Your task to perform on an android device: uninstall "Etsy: Buy & Sell Unique Items" Image 0: 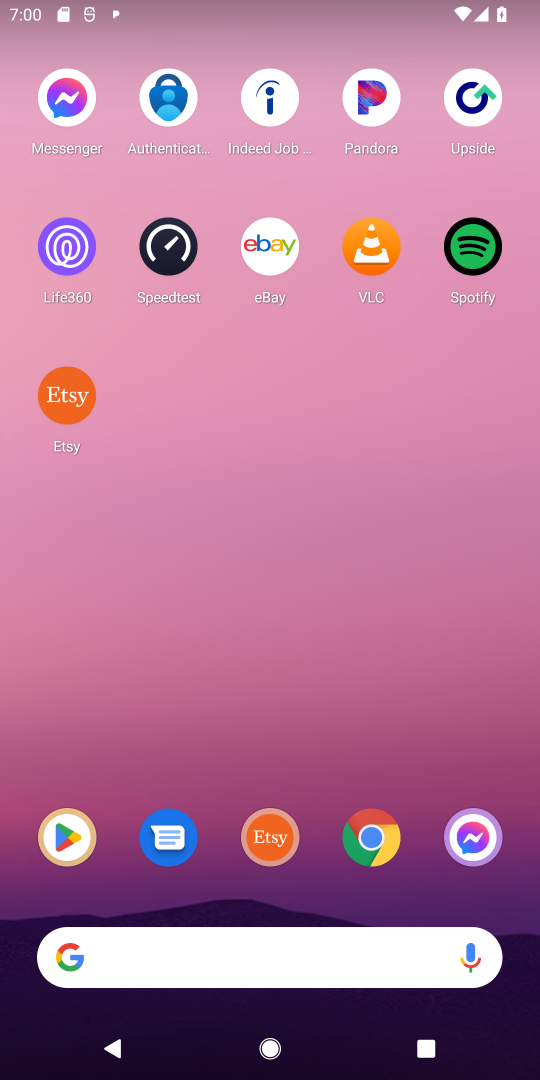
Step 0: click (75, 839)
Your task to perform on an android device: uninstall "Etsy: Buy & Sell Unique Items" Image 1: 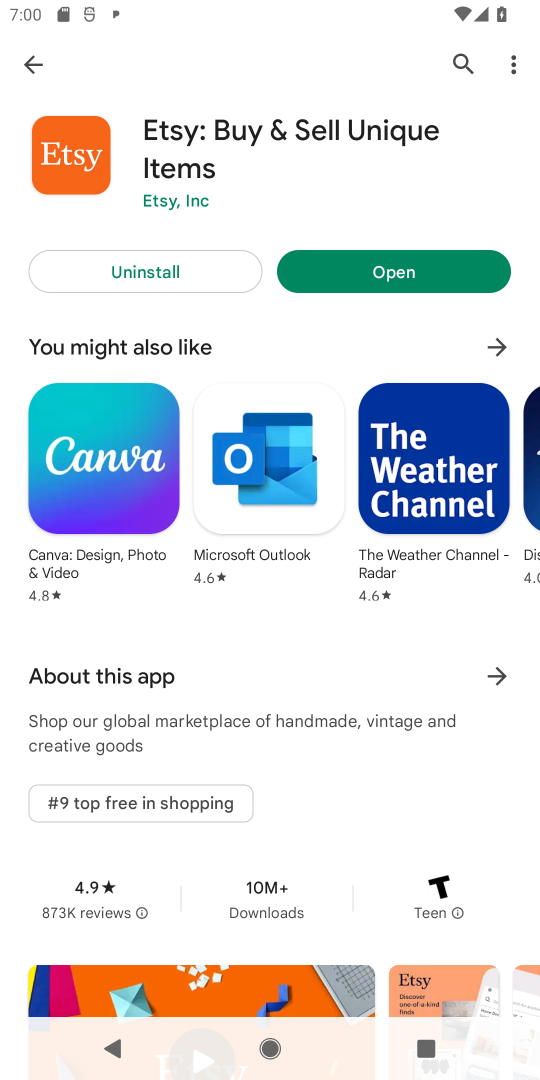
Step 1: click (462, 64)
Your task to perform on an android device: uninstall "Etsy: Buy & Sell Unique Items" Image 2: 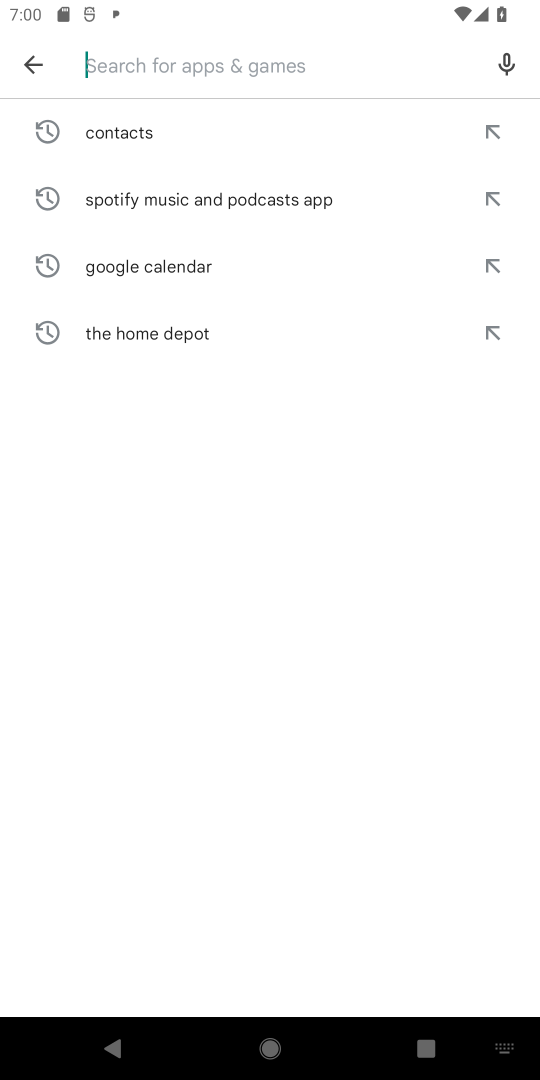
Step 2: type "Etsy: Buy & Sell Unique Items"
Your task to perform on an android device: uninstall "Etsy: Buy & Sell Unique Items" Image 3: 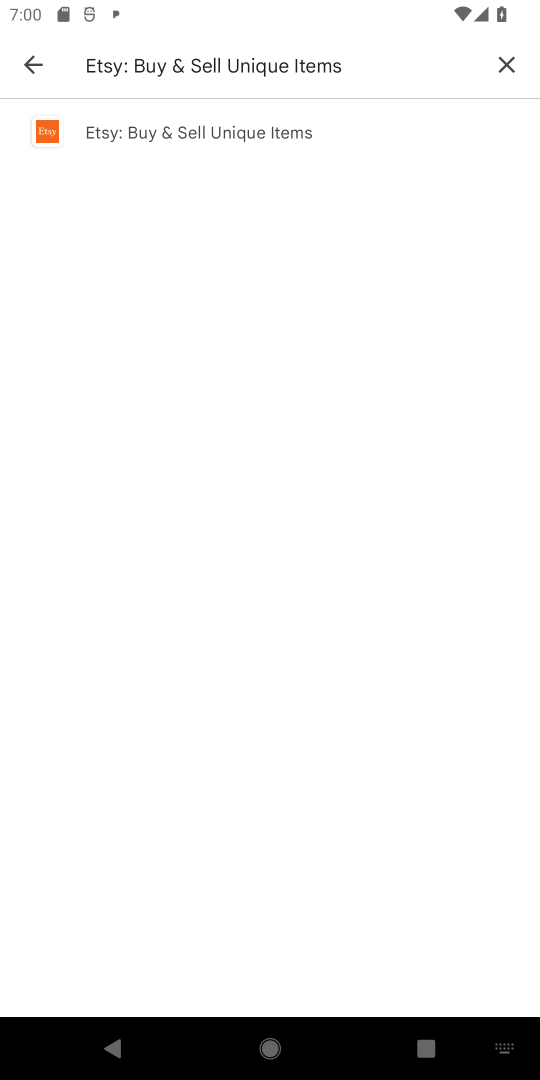
Step 3: click (180, 141)
Your task to perform on an android device: uninstall "Etsy: Buy & Sell Unique Items" Image 4: 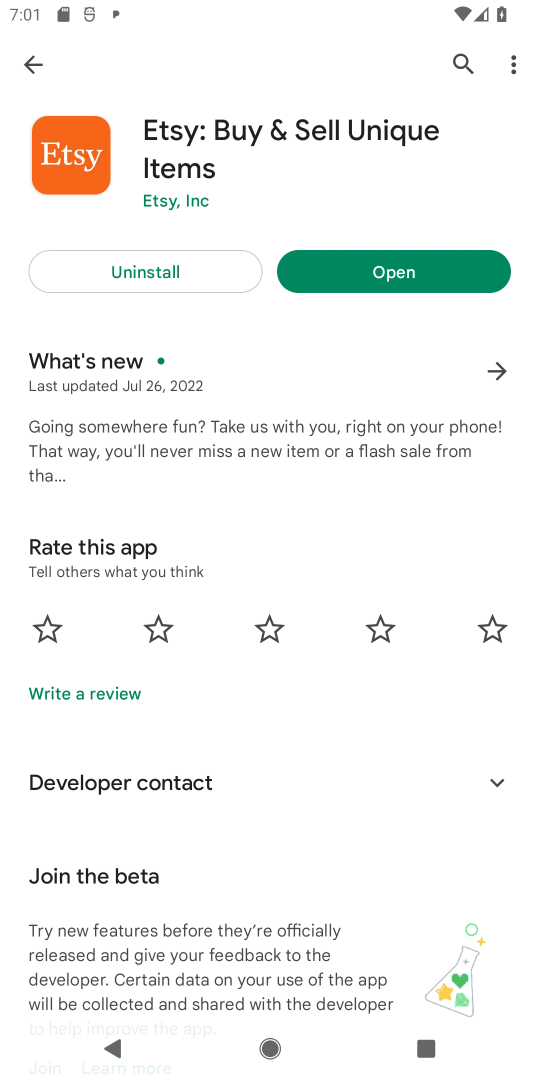
Step 4: click (129, 279)
Your task to perform on an android device: uninstall "Etsy: Buy & Sell Unique Items" Image 5: 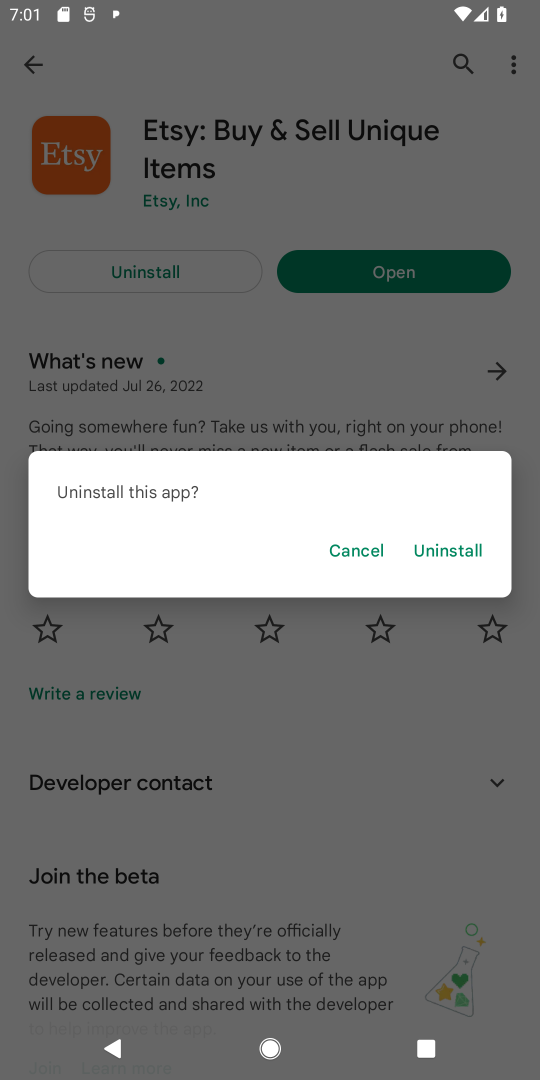
Step 5: click (446, 551)
Your task to perform on an android device: uninstall "Etsy: Buy & Sell Unique Items" Image 6: 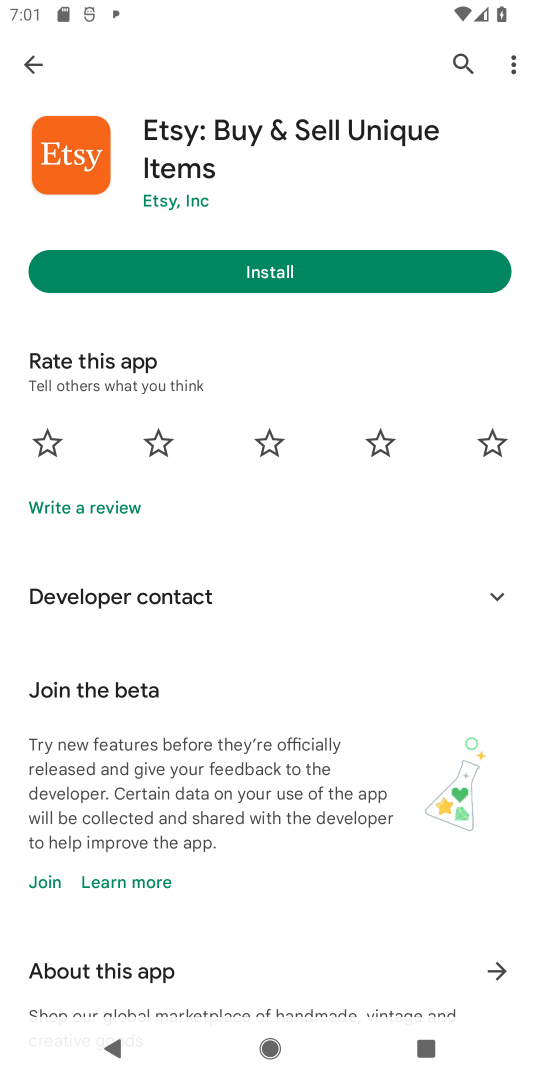
Step 6: task complete